Your task to perform on an android device: Go to Yahoo.com Image 0: 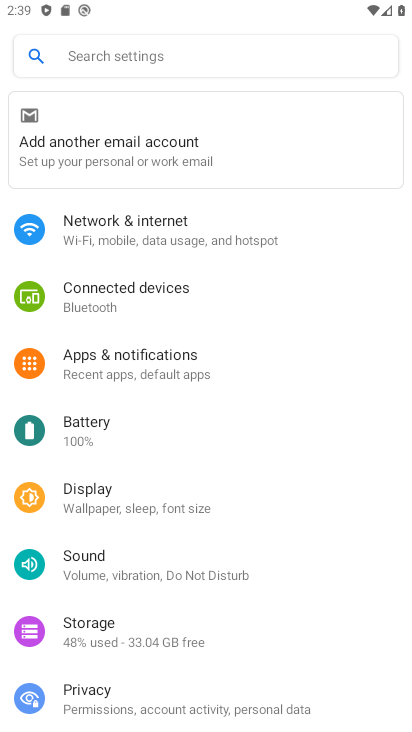
Step 0: press home button
Your task to perform on an android device: Go to Yahoo.com Image 1: 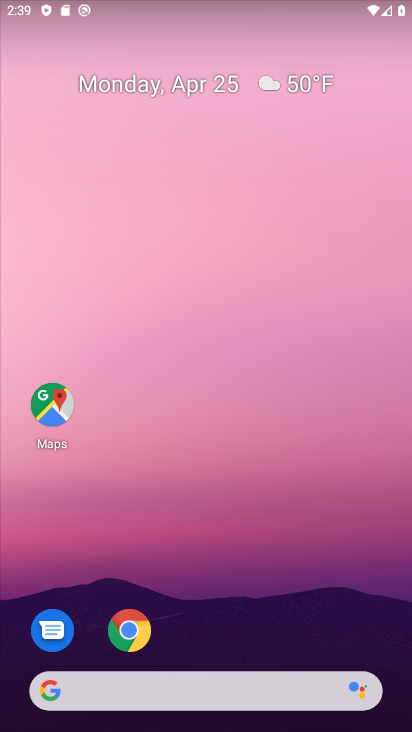
Step 1: click (129, 637)
Your task to perform on an android device: Go to Yahoo.com Image 2: 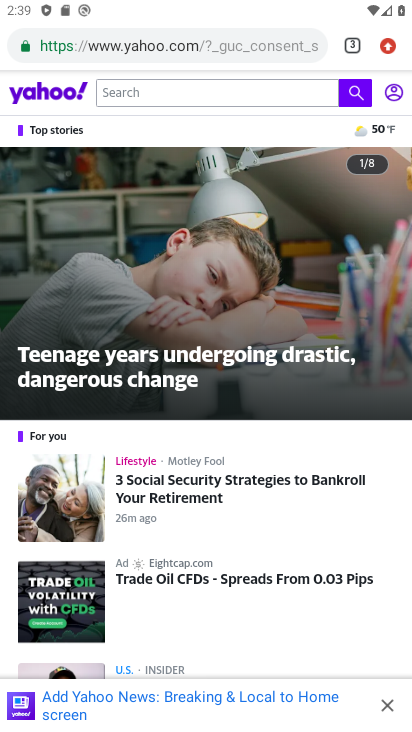
Step 2: task complete